Your task to perform on an android device: toggle notification dots Image 0: 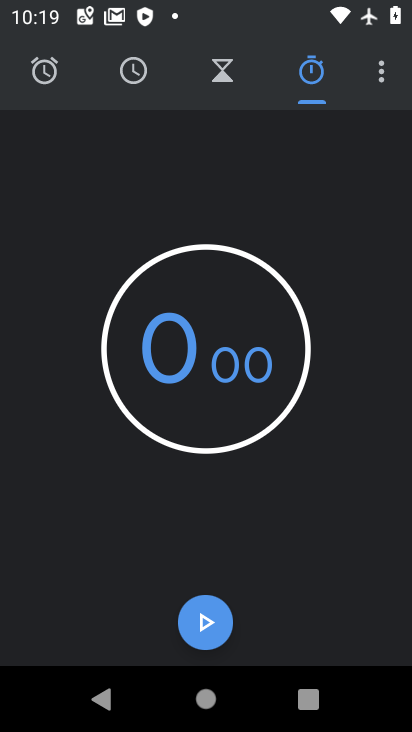
Step 0: task complete